Your task to perform on an android device: Open calendar and show me the first week of next month Image 0: 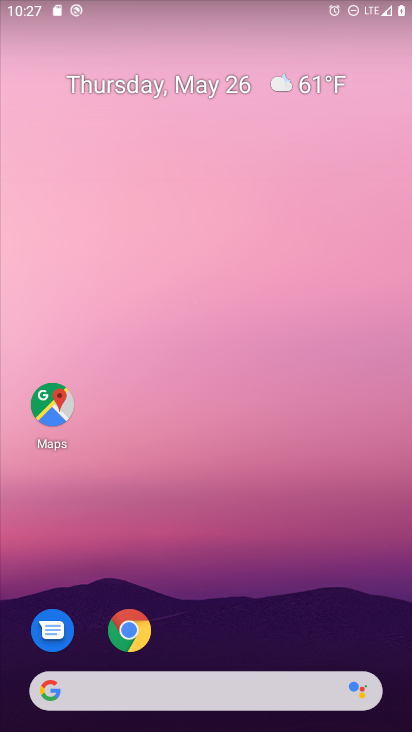
Step 0: drag from (184, 654) to (80, 58)
Your task to perform on an android device: Open calendar and show me the first week of next month Image 1: 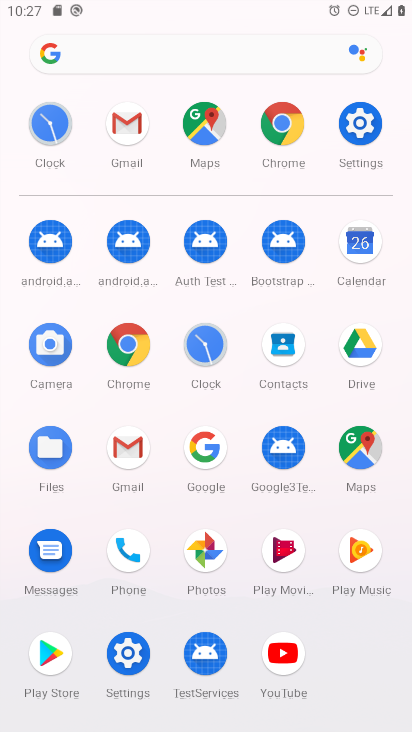
Step 1: click (358, 239)
Your task to perform on an android device: Open calendar and show me the first week of next month Image 2: 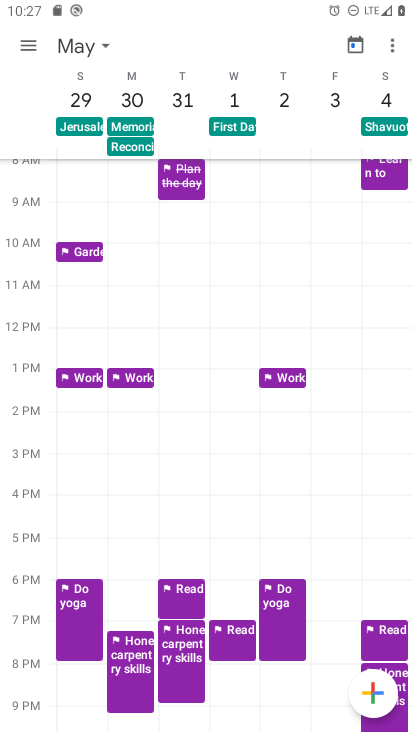
Step 2: click (22, 42)
Your task to perform on an android device: Open calendar and show me the first week of next month Image 3: 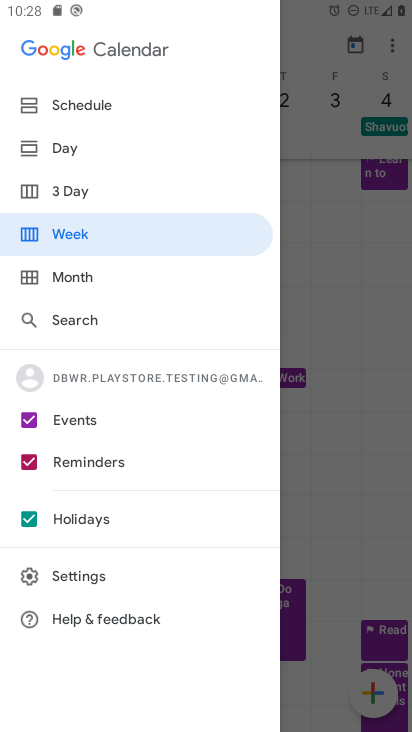
Step 3: click (58, 225)
Your task to perform on an android device: Open calendar and show me the first week of next month Image 4: 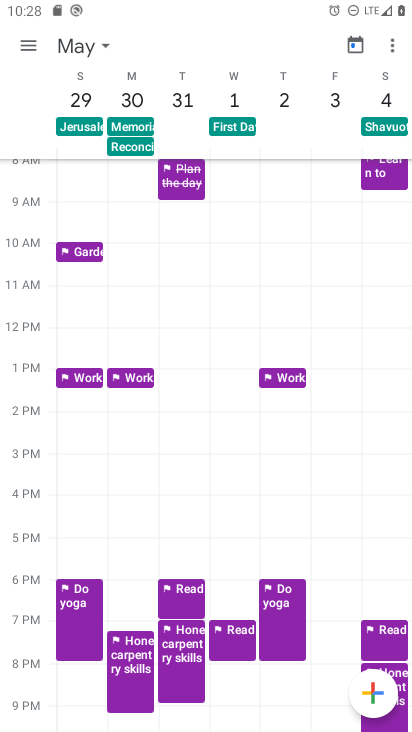
Step 4: task complete